Your task to perform on an android device: see tabs open on other devices in the chrome app Image 0: 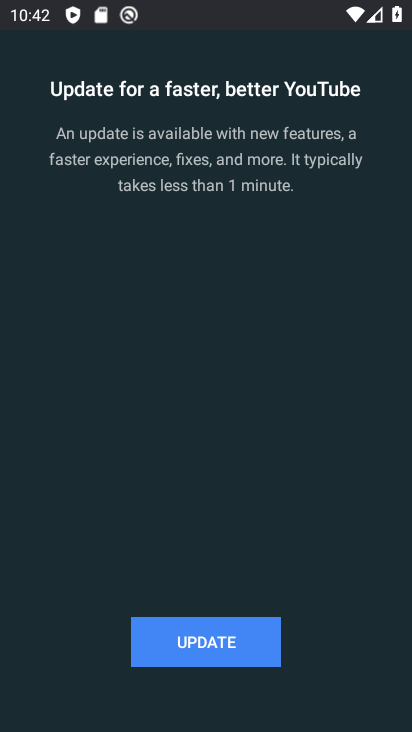
Step 0: press home button
Your task to perform on an android device: see tabs open on other devices in the chrome app Image 1: 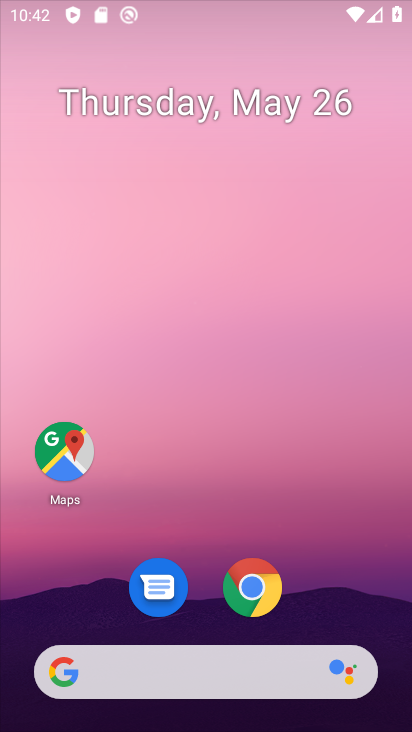
Step 1: drag from (289, 690) to (265, 137)
Your task to perform on an android device: see tabs open on other devices in the chrome app Image 2: 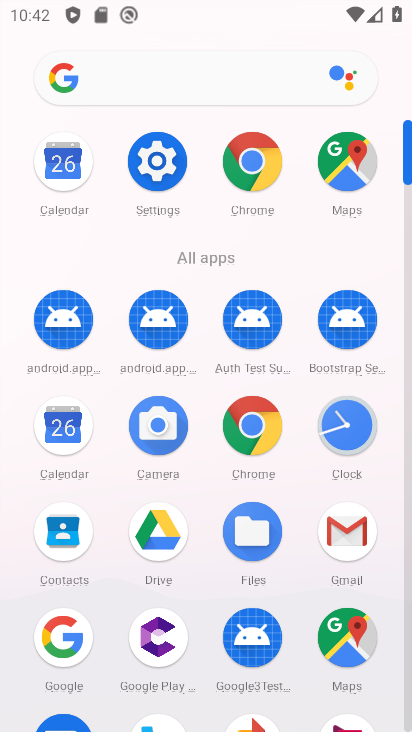
Step 2: click (235, 177)
Your task to perform on an android device: see tabs open on other devices in the chrome app Image 3: 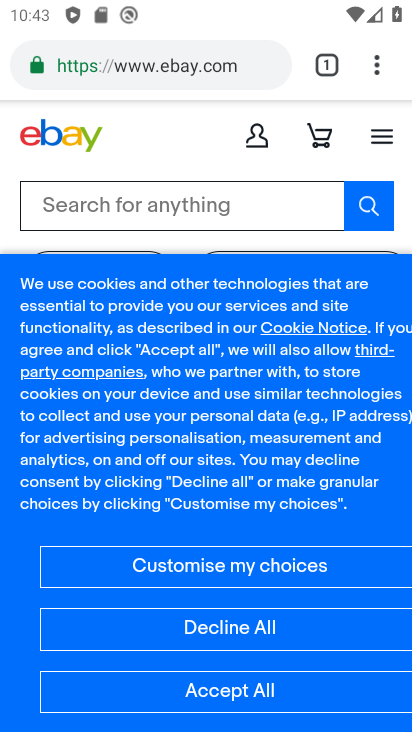
Step 3: click (377, 62)
Your task to perform on an android device: see tabs open on other devices in the chrome app Image 4: 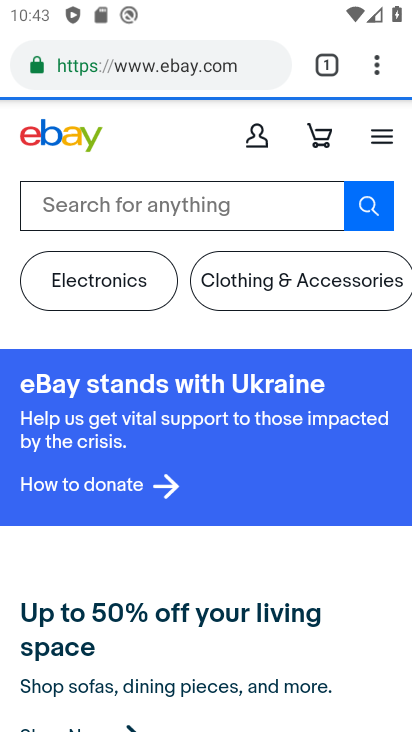
Step 4: click (370, 83)
Your task to perform on an android device: see tabs open on other devices in the chrome app Image 5: 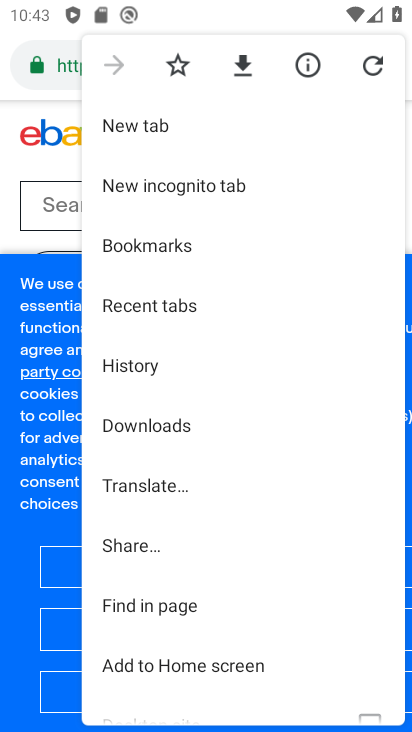
Step 5: click (144, 131)
Your task to perform on an android device: see tabs open on other devices in the chrome app Image 6: 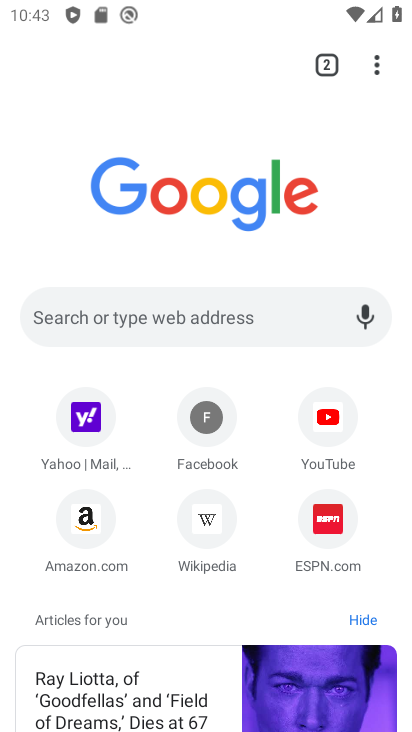
Step 6: task complete